Your task to perform on an android device: open app "NewsBreak: Local News & Alerts" (install if not already installed), go to login, and select forgot password Image 0: 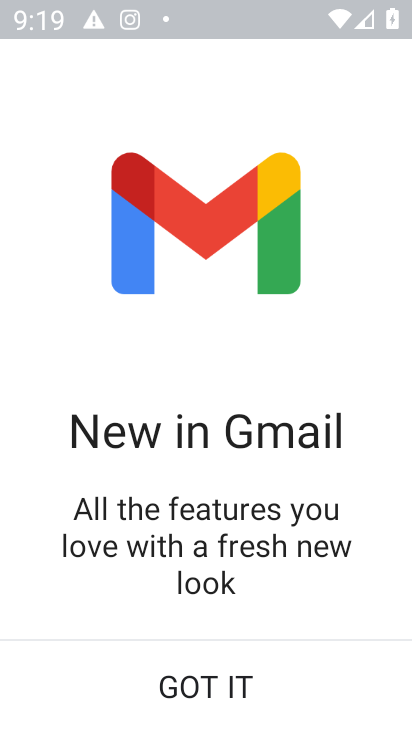
Step 0: press home button
Your task to perform on an android device: open app "NewsBreak: Local News & Alerts" (install if not already installed), go to login, and select forgot password Image 1: 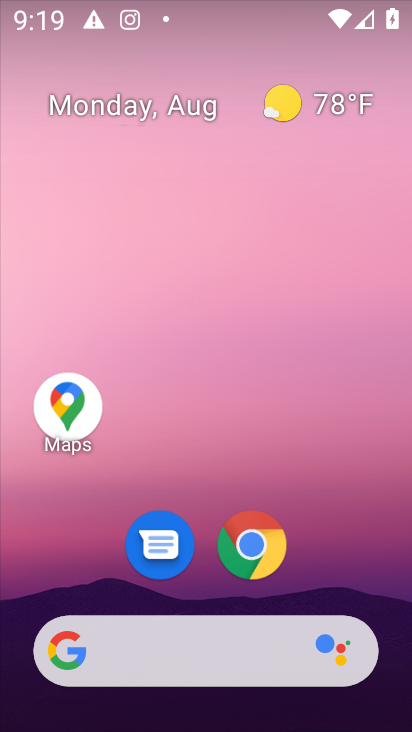
Step 1: drag from (346, 553) to (368, 133)
Your task to perform on an android device: open app "NewsBreak: Local News & Alerts" (install if not already installed), go to login, and select forgot password Image 2: 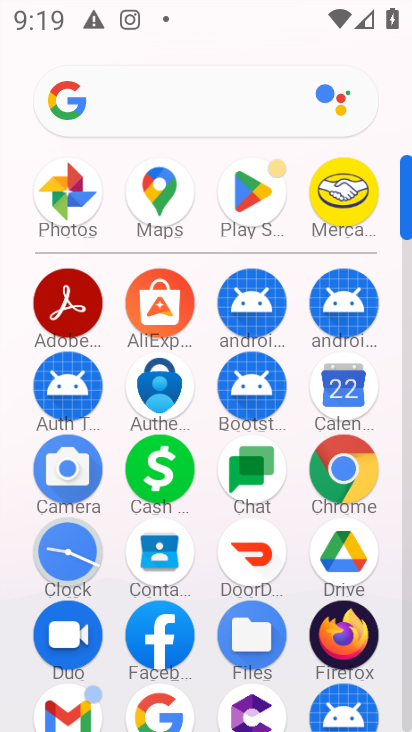
Step 2: click (245, 202)
Your task to perform on an android device: open app "NewsBreak: Local News & Alerts" (install if not already installed), go to login, and select forgot password Image 3: 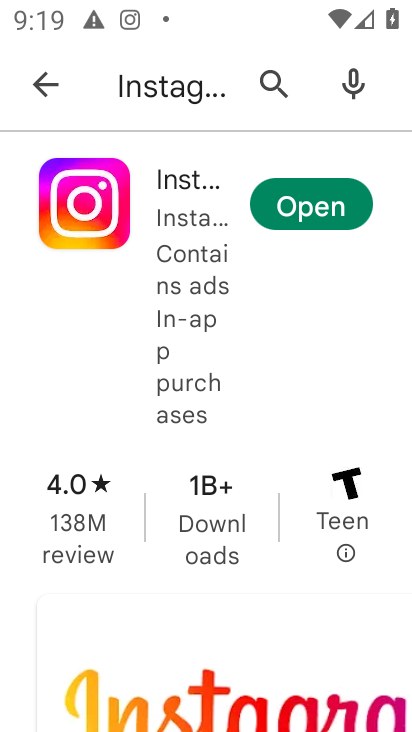
Step 3: press back button
Your task to perform on an android device: open app "NewsBreak: Local News & Alerts" (install if not already installed), go to login, and select forgot password Image 4: 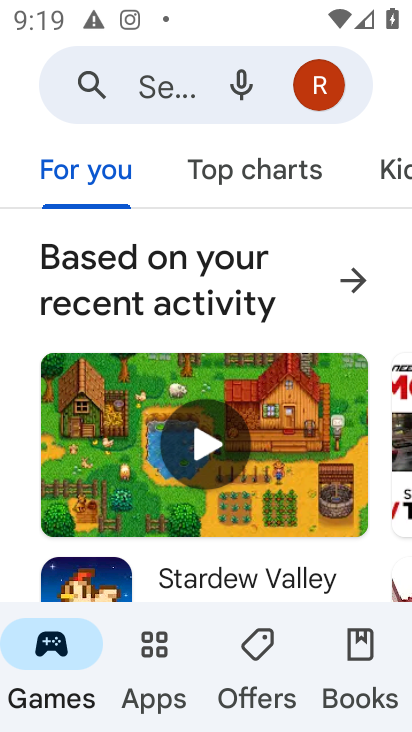
Step 4: click (160, 91)
Your task to perform on an android device: open app "NewsBreak: Local News & Alerts" (install if not already installed), go to login, and select forgot password Image 5: 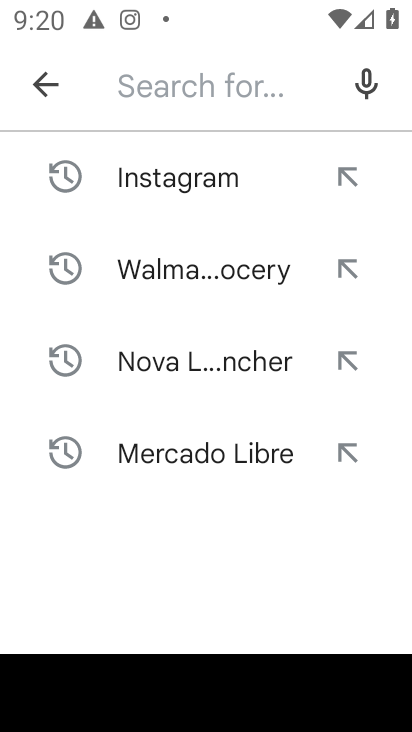
Step 5: type "NewsBreak: Local News & Alerts"
Your task to perform on an android device: open app "NewsBreak: Local News & Alerts" (install if not already installed), go to login, and select forgot password Image 6: 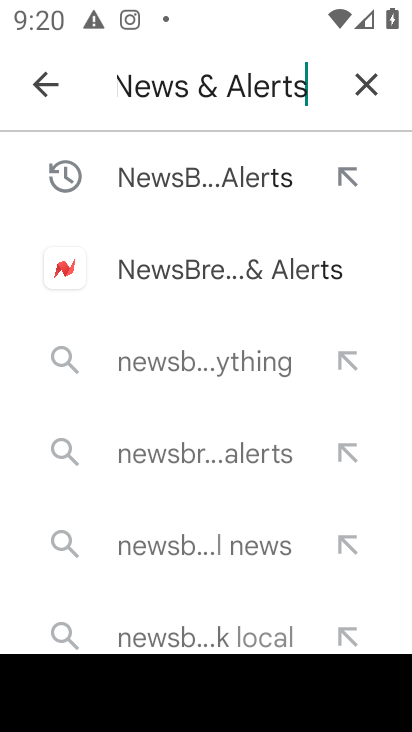
Step 6: press enter
Your task to perform on an android device: open app "NewsBreak: Local News & Alerts" (install if not already installed), go to login, and select forgot password Image 7: 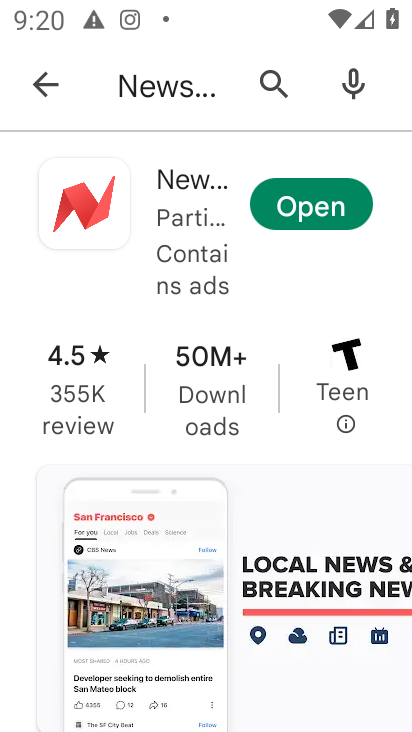
Step 7: click (307, 214)
Your task to perform on an android device: open app "NewsBreak: Local News & Alerts" (install if not already installed), go to login, and select forgot password Image 8: 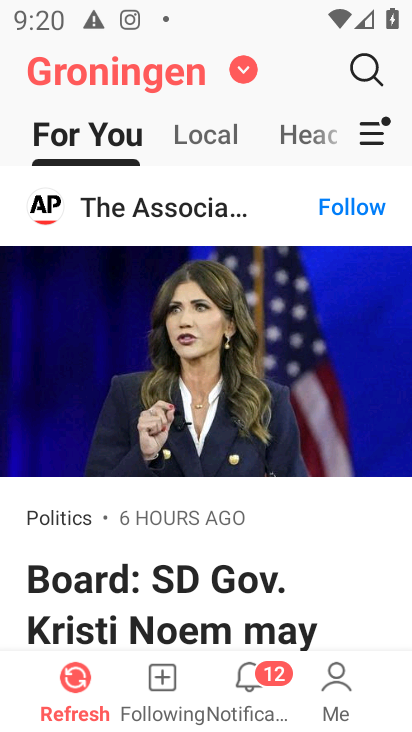
Step 8: click (334, 678)
Your task to perform on an android device: open app "NewsBreak: Local News & Alerts" (install if not already installed), go to login, and select forgot password Image 9: 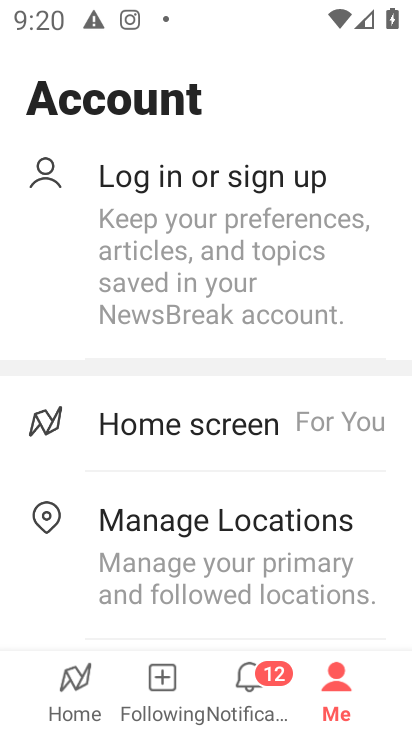
Step 9: click (186, 176)
Your task to perform on an android device: open app "NewsBreak: Local News & Alerts" (install if not already installed), go to login, and select forgot password Image 10: 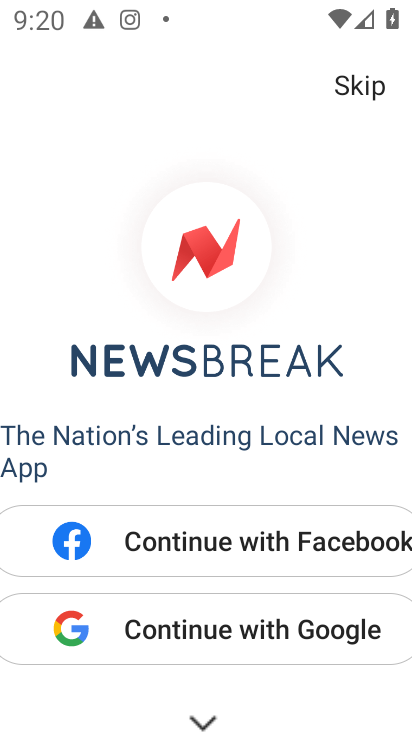
Step 10: click (209, 719)
Your task to perform on an android device: open app "NewsBreak: Local News & Alerts" (install if not already installed), go to login, and select forgot password Image 11: 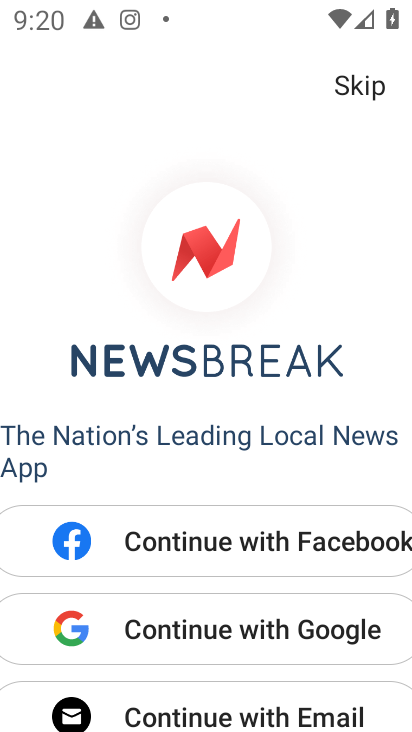
Step 11: task complete